Your task to perform on an android device: see sites visited before in the chrome app Image 0: 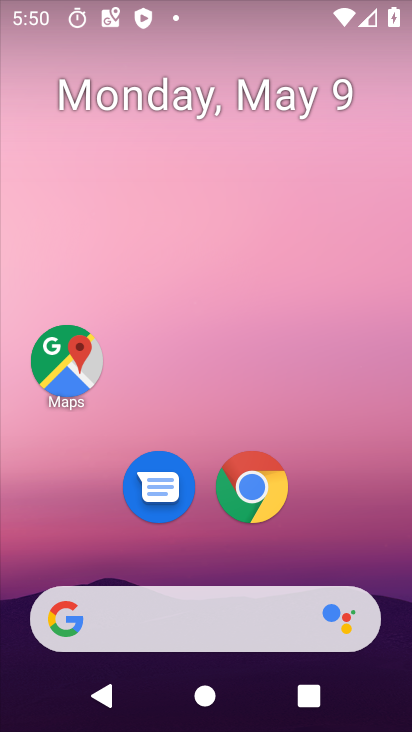
Step 0: click (256, 503)
Your task to perform on an android device: see sites visited before in the chrome app Image 1: 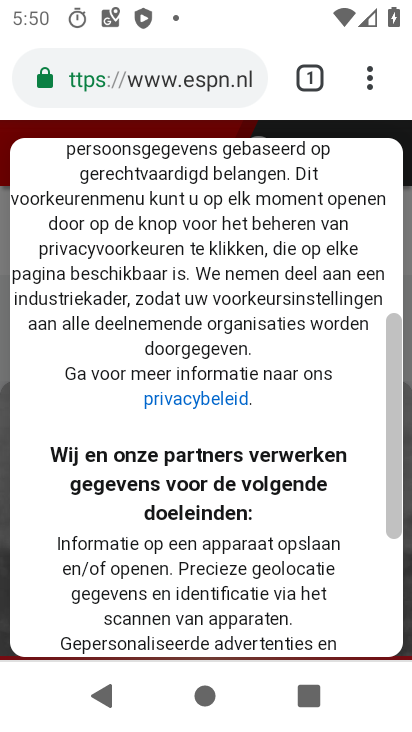
Step 1: click (369, 74)
Your task to perform on an android device: see sites visited before in the chrome app Image 2: 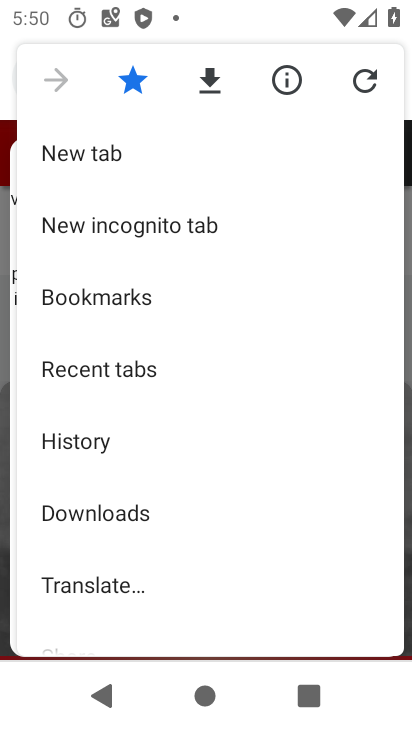
Step 2: click (110, 442)
Your task to perform on an android device: see sites visited before in the chrome app Image 3: 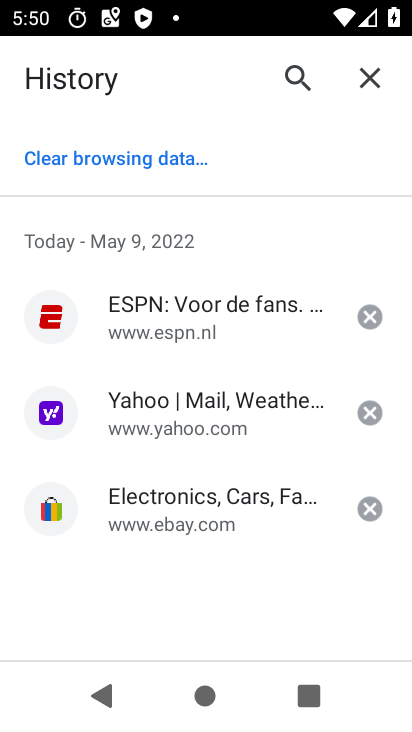
Step 3: task complete